Your task to perform on an android device: toggle notifications settings in the gmail app Image 0: 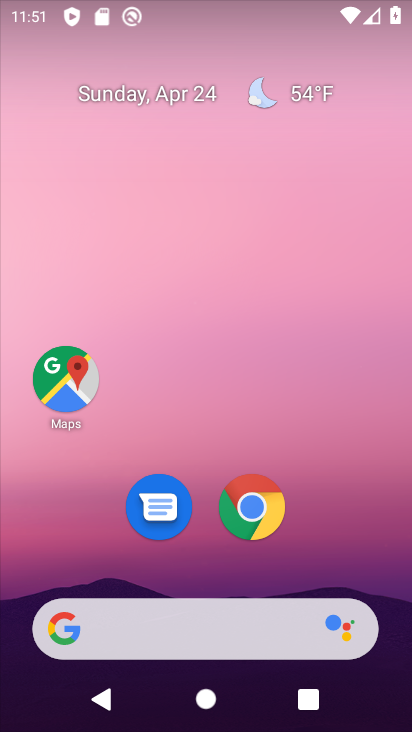
Step 0: drag from (334, 508) to (195, 27)
Your task to perform on an android device: toggle notifications settings in the gmail app Image 1: 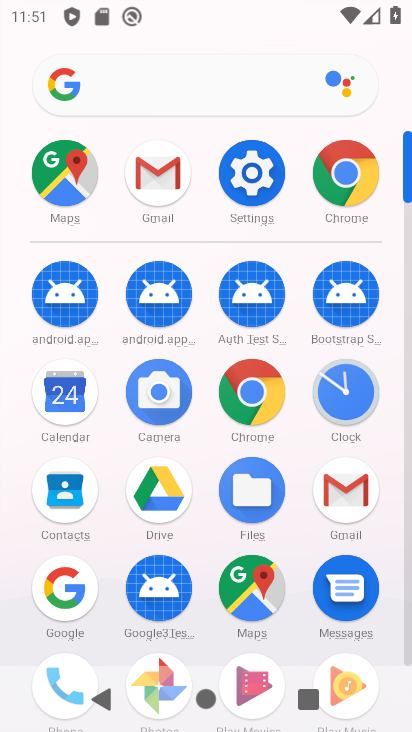
Step 1: drag from (9, 503) to (9, 317)
Your task to perform on an android device: toggle notifications settings in the gmail app Image 2: 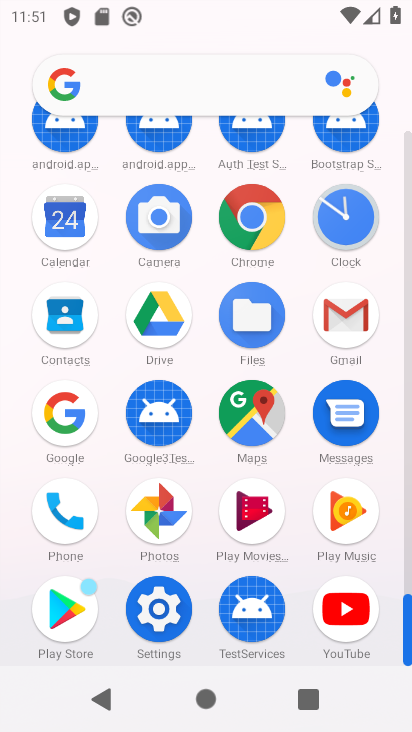
Step 2: drag from (11, 439) to (17, 233)
Your task to perform on an android device: toggle notifications settings in the gmail app Image 3: 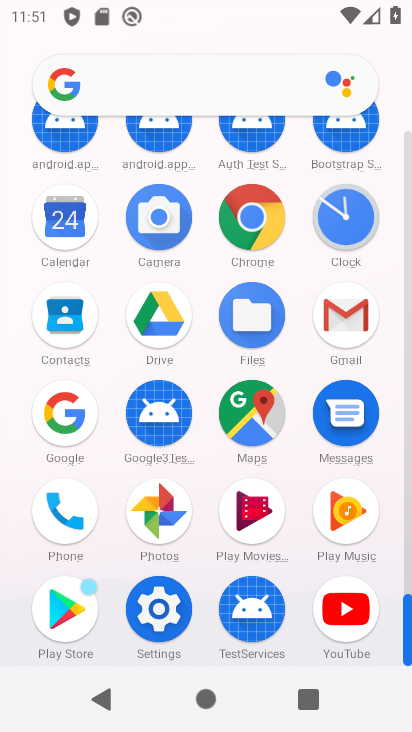
Step 3: click (344, 307)
Your task to perform on an android device: toggle notifications settings in the gmail app Image 4: 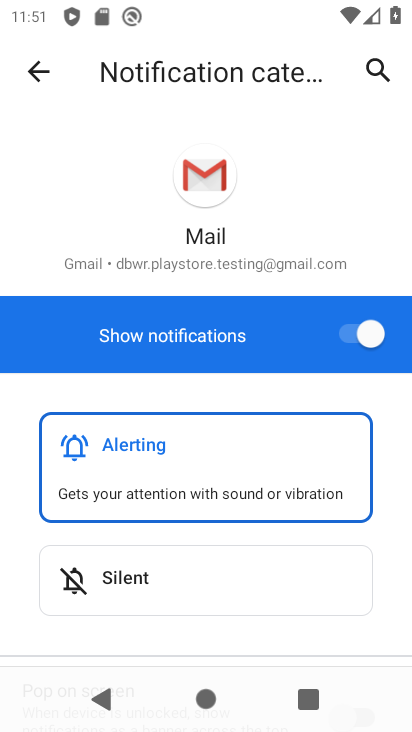
Step 4: click (32, 71)
Your task to perform on an android device: toggle notifications settings in the gmail app Image 5: 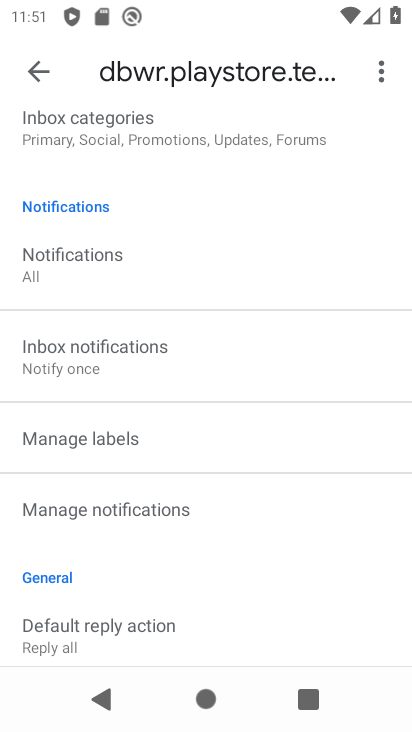
Step 5: click (98, 498)
Your task to perform on an android device: toggle notifications settings in the gmail app Image 6: 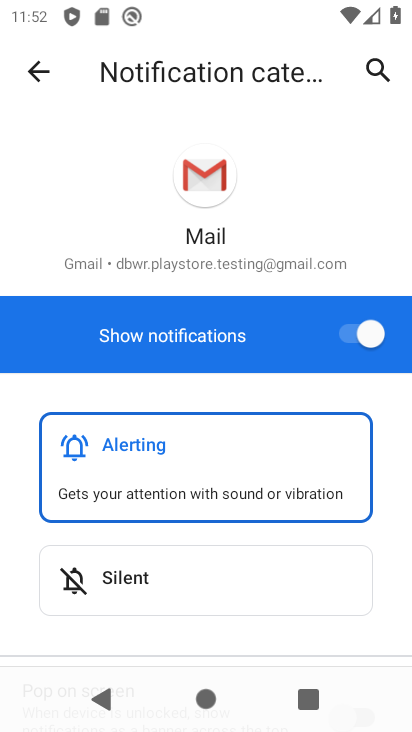
Step 6: click (349, 324)
Your task to perform on an android device: toggle notifications settings in the gmail app Image 7: 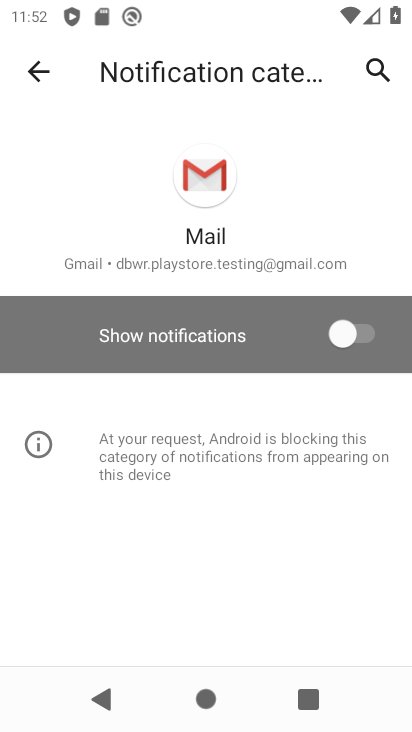
Step 7: task complete